Your task to perform on an android device: toggle sleep mode Image 0: 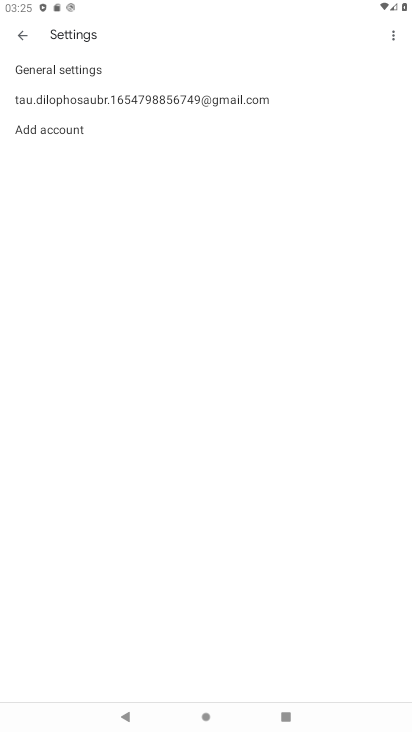
Step 0: press home button
Your task to perform on an android device: toggle sleep mode Image 1: 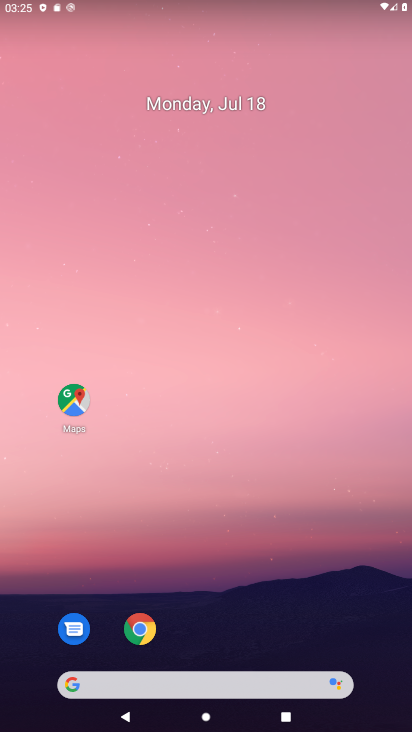
Step 1: drag from (407, 698) to (373, 115)
Your task to perform on an android device: toggle sleep mode Image 2: 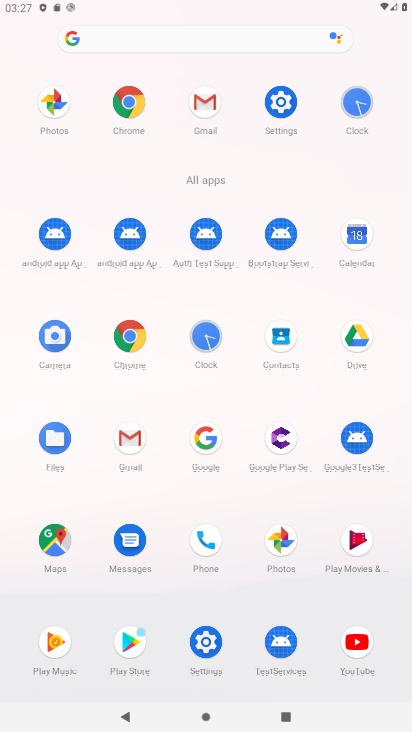
Step 2: click (281, 92)
Your task to perform on an android device: toggle sleep mode Image 3: 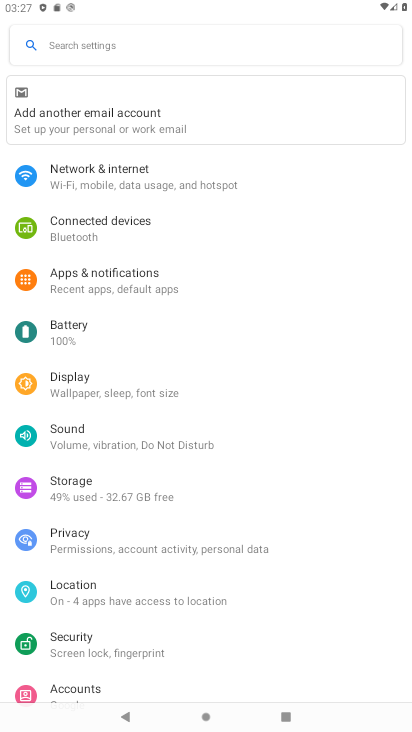
Step 3: click (76, 383)
Your task to perform on an android device: toggle sleep mode Image 4: 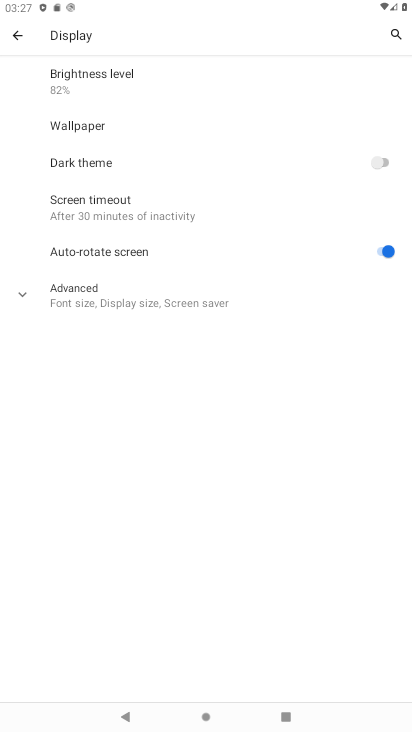
Step 4: click (28, 290)
Your task to perform on an android device: toggle sleep mode Image 5: 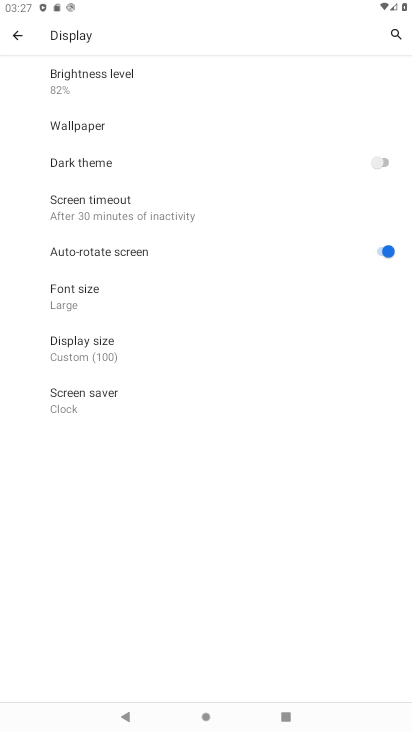
Step 5: click (69, 339)
Your task to perform on an android device: toggle sleep mode Image 6: 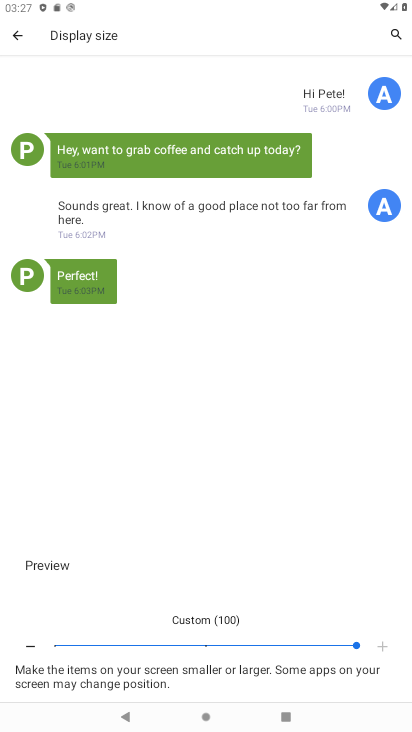
Step 6: click (10, 32)
Your task to perform on an android device: toggle sleep mode Image 7: 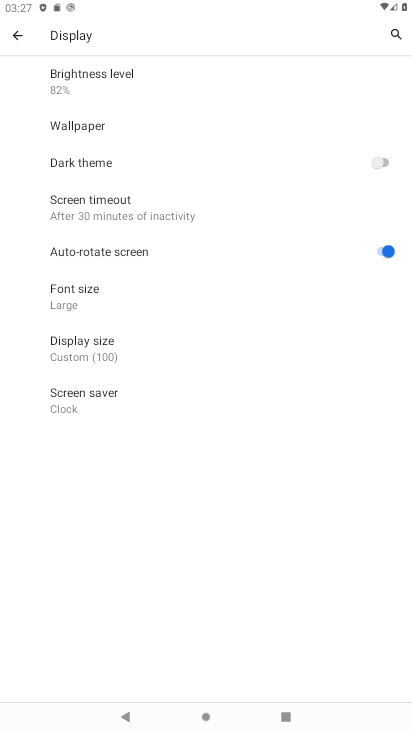
Step 7: click (76, 197)
Your task to perform on an android device: toggle sleep mode Image 8: 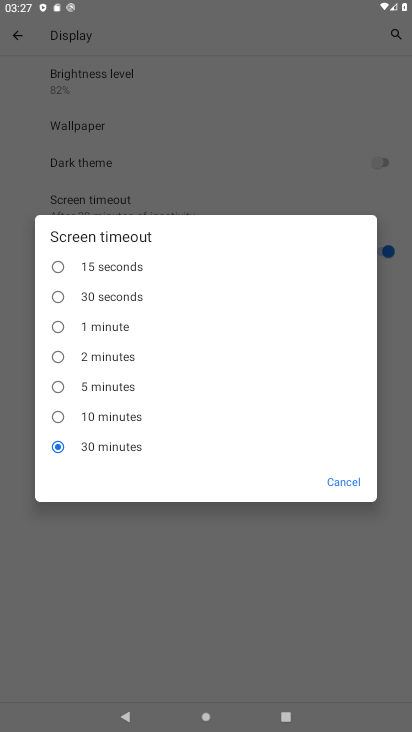
Step 8: click (54, 414)
Your task to perform on an android device: toggle sleep mode Image 9: 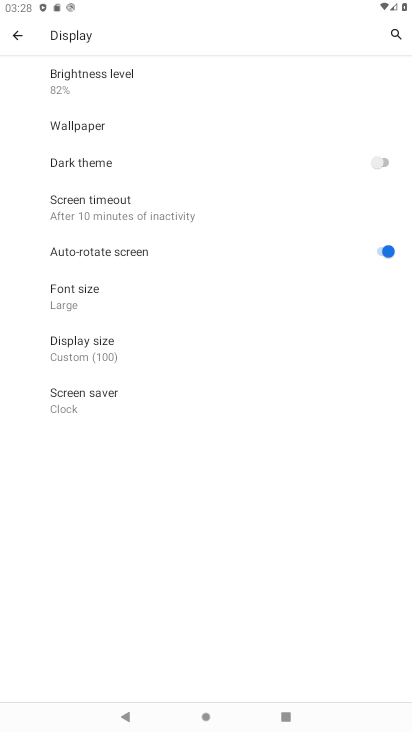
Step 9: task complete